Your task to perform on an android device: set the timer Image 0: 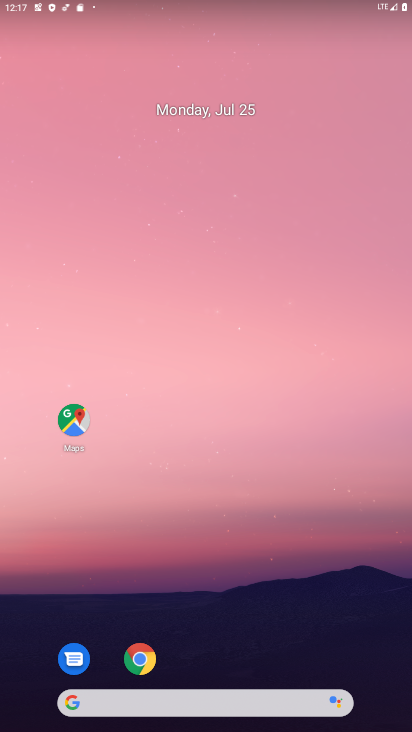
Step 0: drag from (21, 692) to (199, 223)
Your task to perform on an android device: set the timer Image 1: 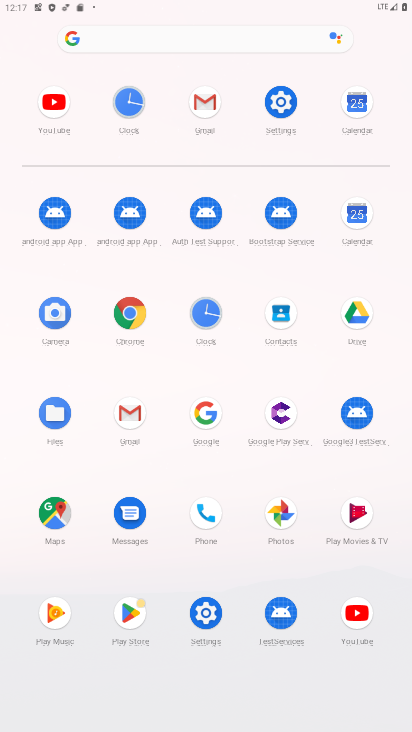
Step 1: click (205, 324)
Your task to perform on an android device: set the timer Image 2: 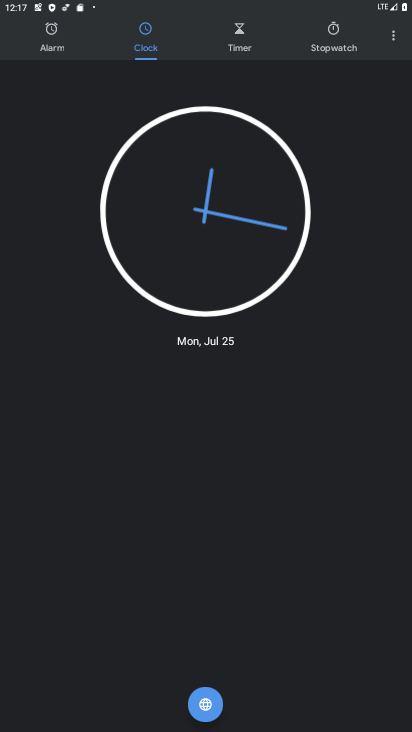
Step 2: click (245, 29)
Your task to perform on an android device: set the timer Image 3: 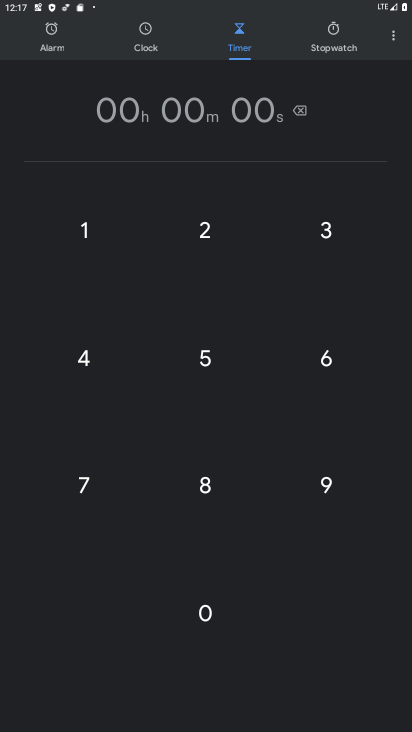
Step 3: click (196, 372)
Your task to perform on an android device: set the timer Image 4: 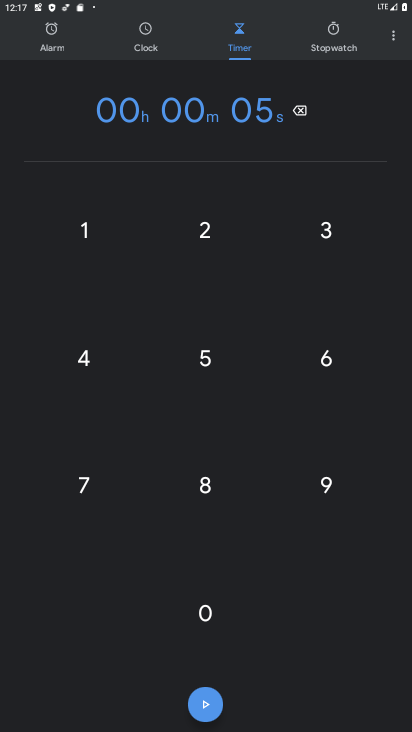
Step 4: click (145, 107)
Your task to perform on an android device: set the timer Image 5: 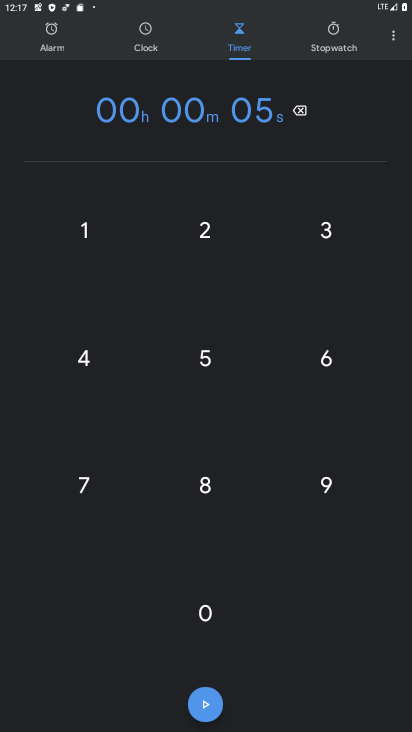
Step 5: click (98, 237)
Your task to perform on an android device: set the timer Image 6: 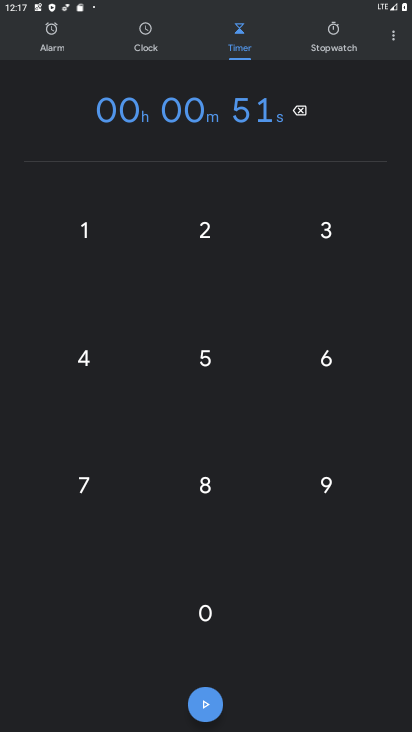
Step 6: task complete